Your task to perform on an android device: turn off data saver in the chrome app Image 0: 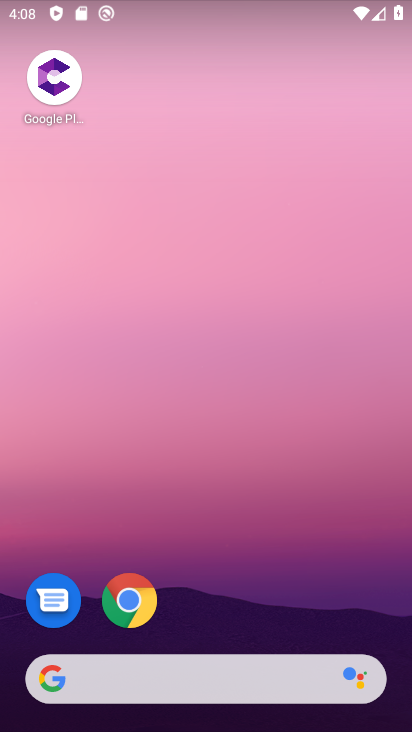
Step 0: click (130, 597)
Your task to perform on an android device: turn off data saver in the chrome app Image 1: 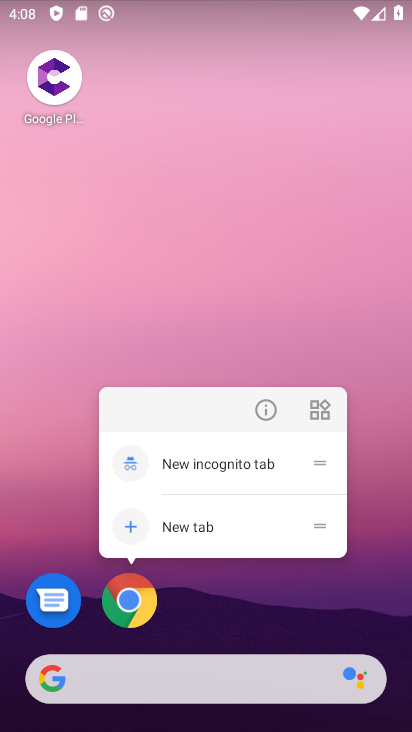
Step 1: click (125, 613)
Your task to perform on an android device: turn off data saver in the chrome app Image 2: 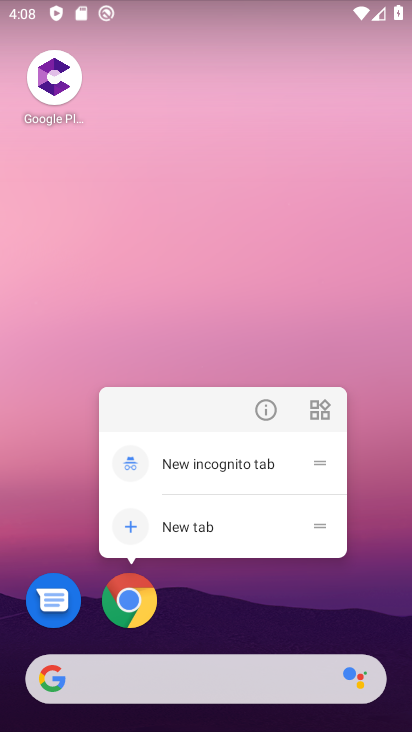
Step 2: click (135, 619)
Your task to perform on an android device: turn off data saver in the chrome app Image 3: 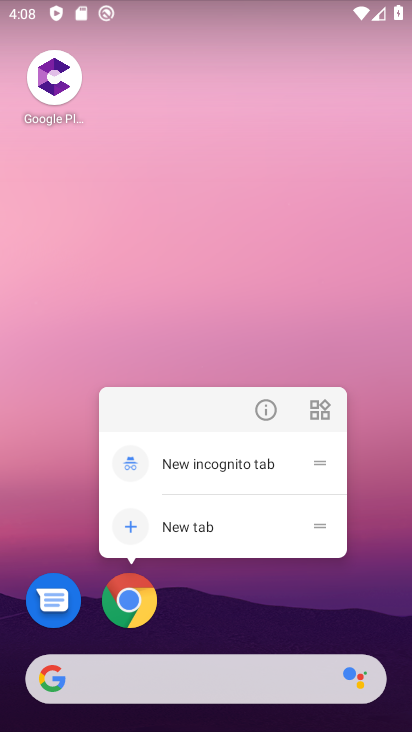
Step 3: click (141, 610)
Your task to perform on an android device: turn off data saver in the chrome app Image 4: 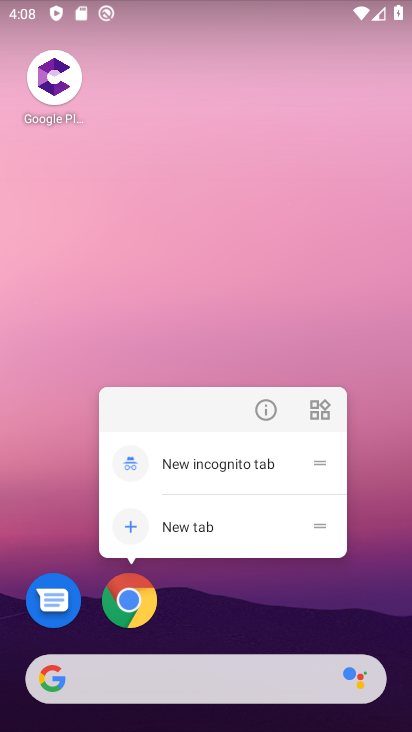
Step 4: click (141, 602)
Your task to perform on an android device: turn off data saver in the chrome app Image 5: 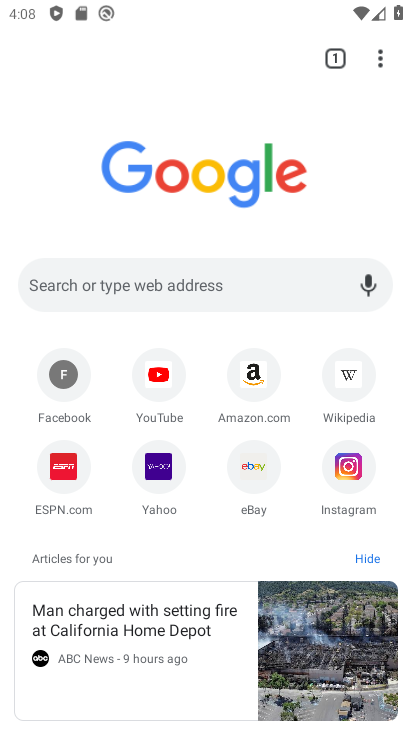
Step 5: click (388, 74)
Your task to perform on an android device: turn off data saver in the chrome app Image 6: 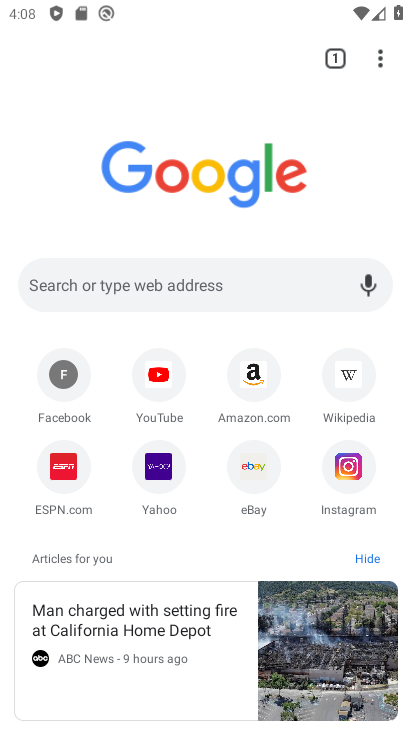
Step 6: drag from (383, 74) to (273, 486)
Your task to perform on an android device: turn off data saver in the chrome app Image 7: 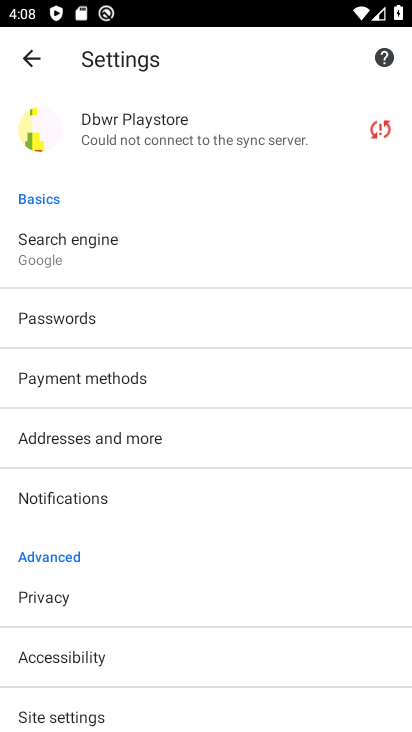
Step 7: drag from (172, 640) to (267, 392)
Your task to perform on an android device: turn off data saver in the chrome app Image 8: 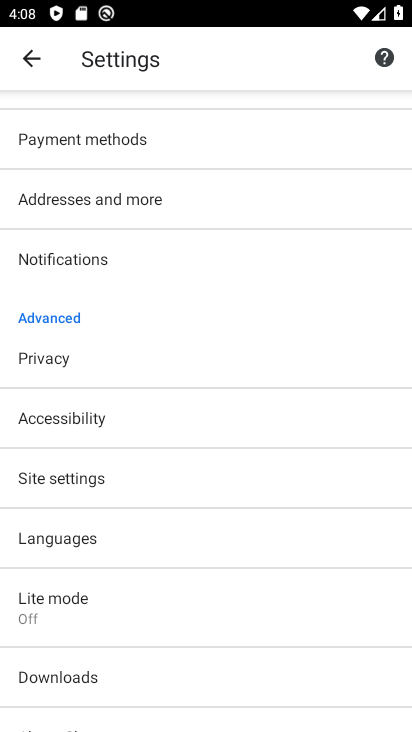
Step 8: click (165, 609)
Your task to perform on an android device: turn off data saver in the chrome app Image 9: 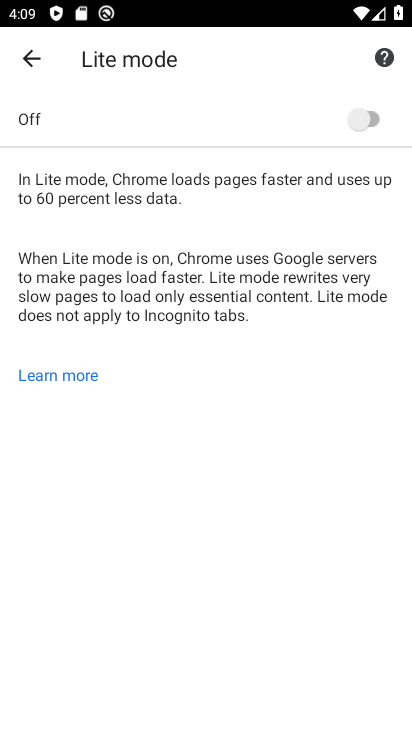
Step 9: task complete